Your task to perform on an android device: Open display settings Image 0: 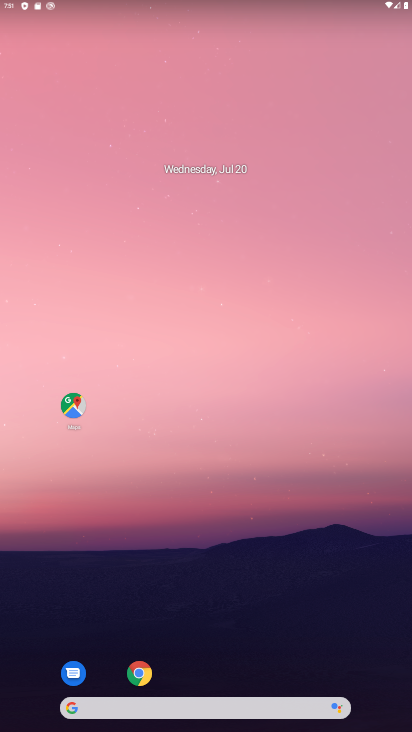
Step 0: drag from (177, 660) to (263, 80)
Your task to perform on an android device: Open display settings Image 1: 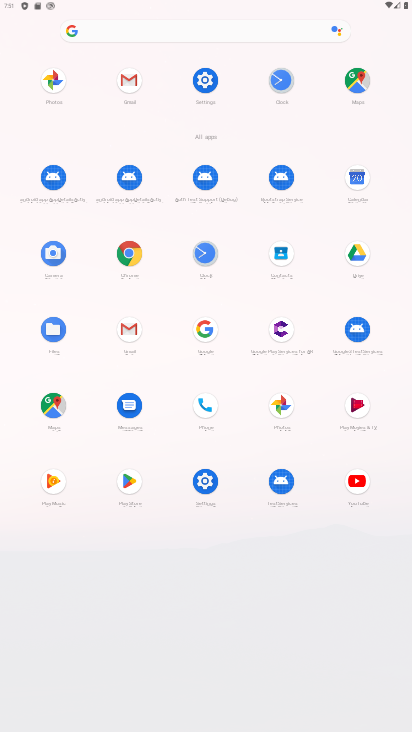
Step 1: click (203, 79)
Your task to perform on an android device: Open display settings Image 2: 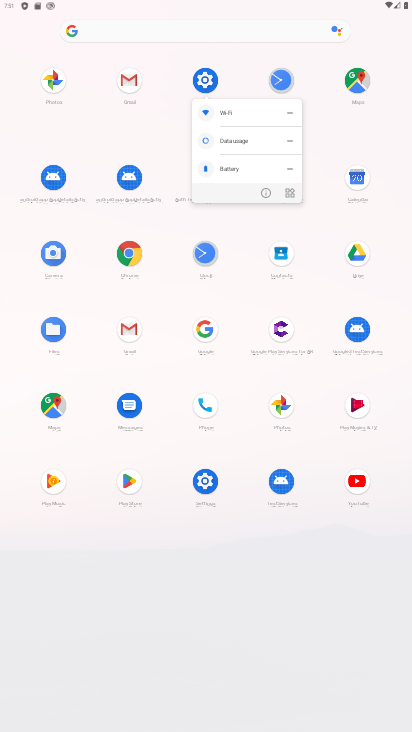
Step 2: click (271, 187)
Your task to perform on an android device: Open display settings Image 3: 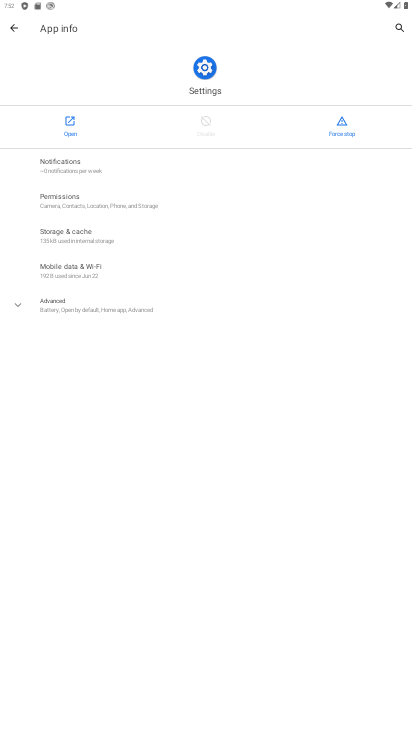
Step 3: click (77, 123)
Your task to perform on an android device: Open display settings Image 4: 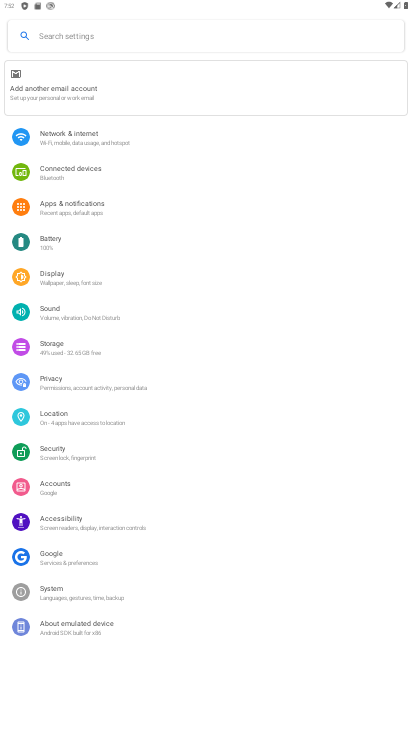
Step 4: click (65, 282)
Your task to perform on an android device: Open display settings Image 5: 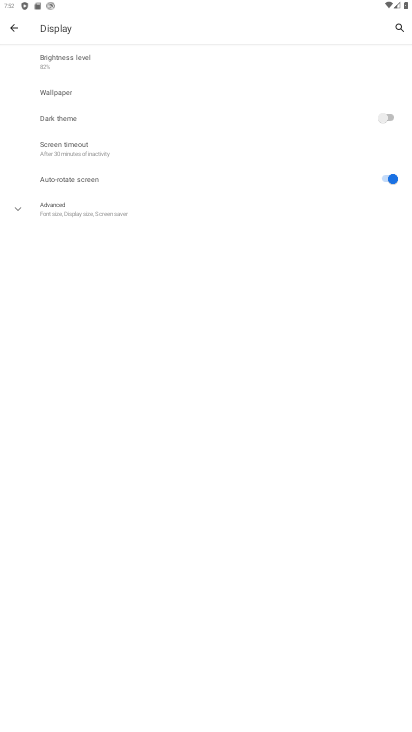
Step 5: task complete